Your task to perform on an android device: change notification settings in the gmail app Image 0: 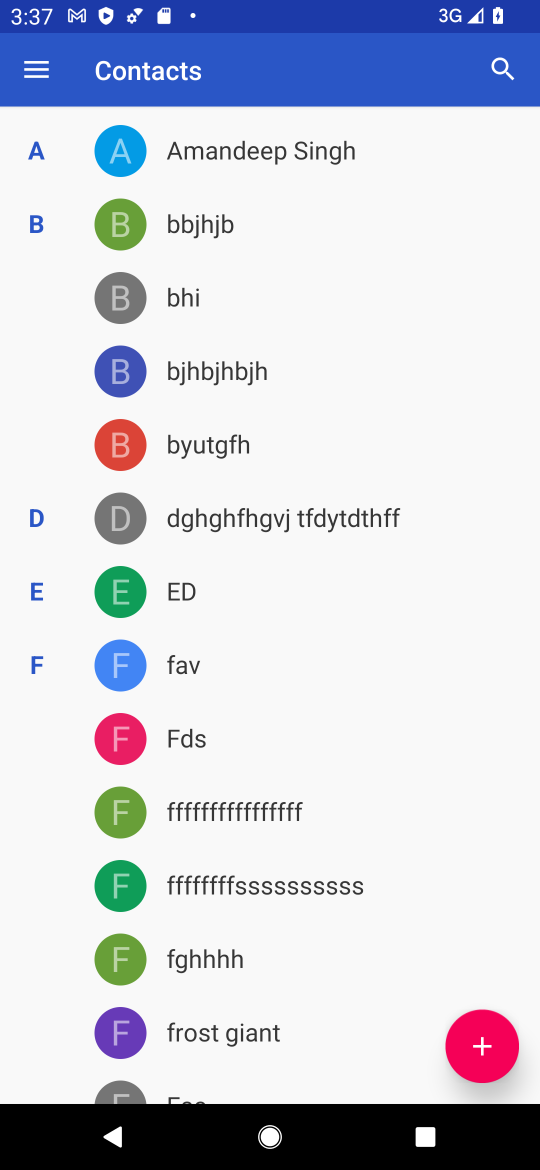
Step 0: press home button
Your task to perform on an android device: change notification settings in the gmail app Image 1: 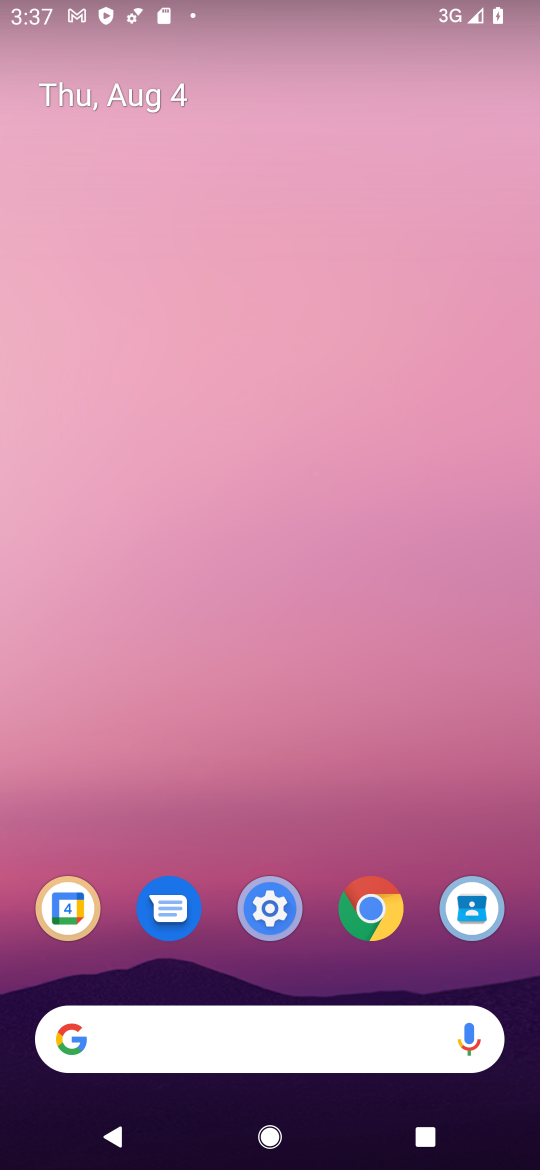
Step 1: drag from (326, 969) to (209, 391)
Your task to perform on an android device: change notification settings in the gmail app Image 2: 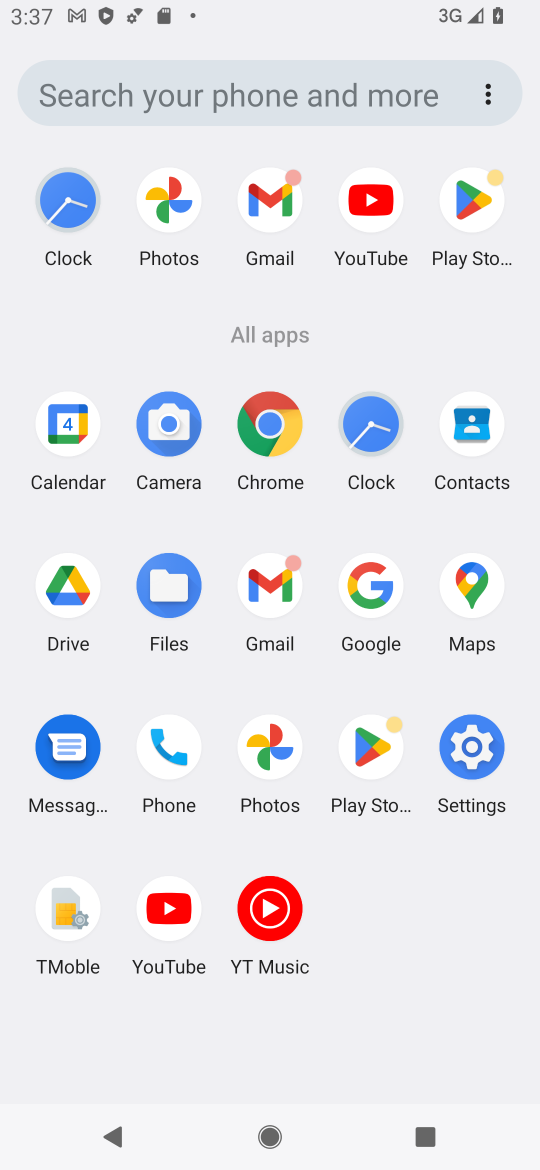
Step 2: click (292, 596)
Your task to perform on an android device: change notification settings in the gmail app Image 3: 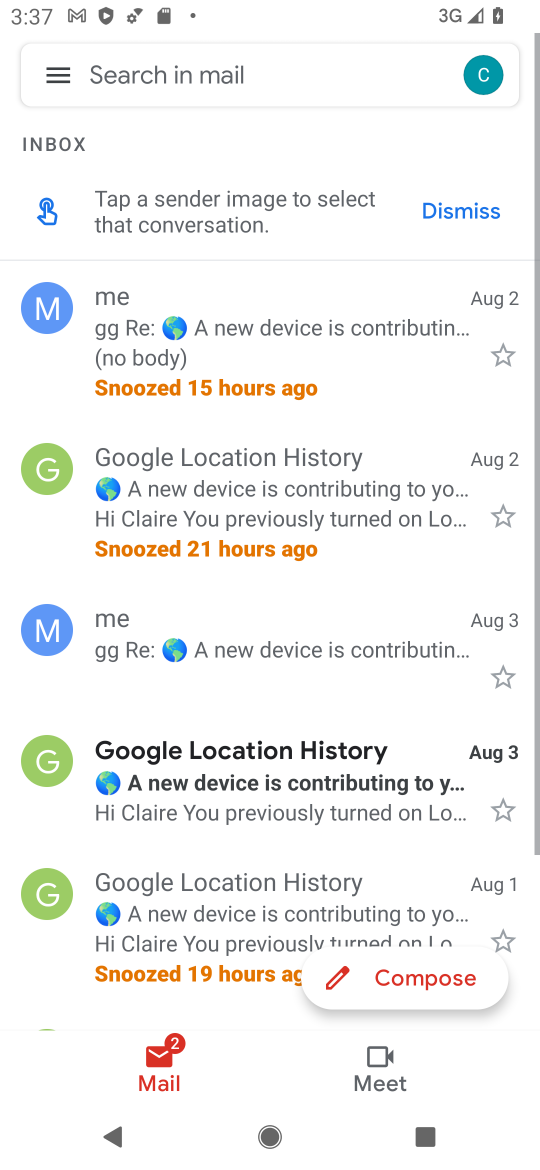
Step 3: click (54, 72)
Your task to perform on an android device: change notification settings in the gmail app Image 4: 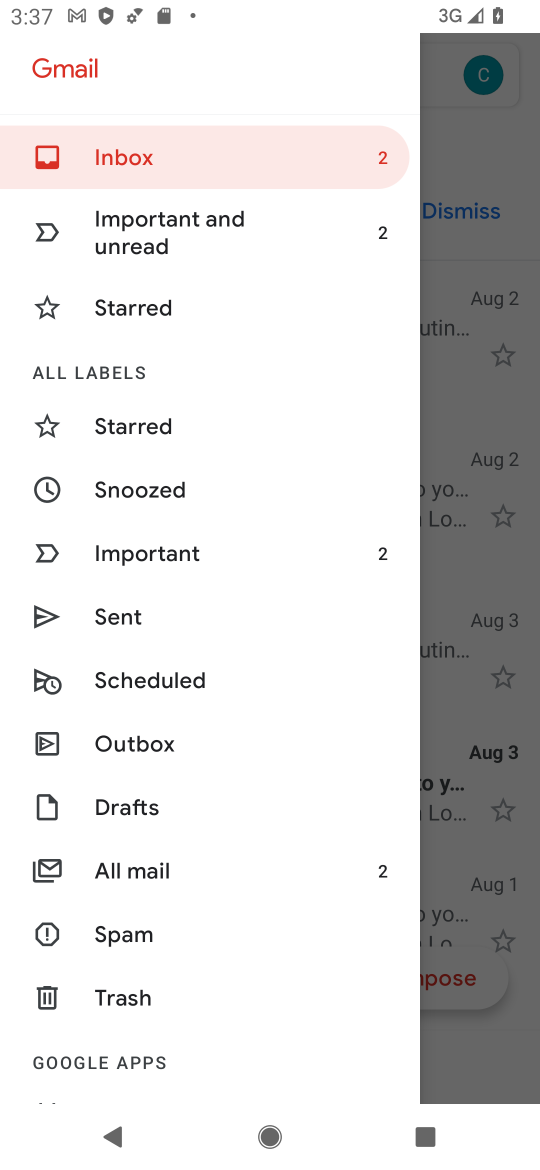
Step 4: drag from (189, 876) to (192, 319)
Your task to perform on an android device: change notification settings in the gmail app Image 5: 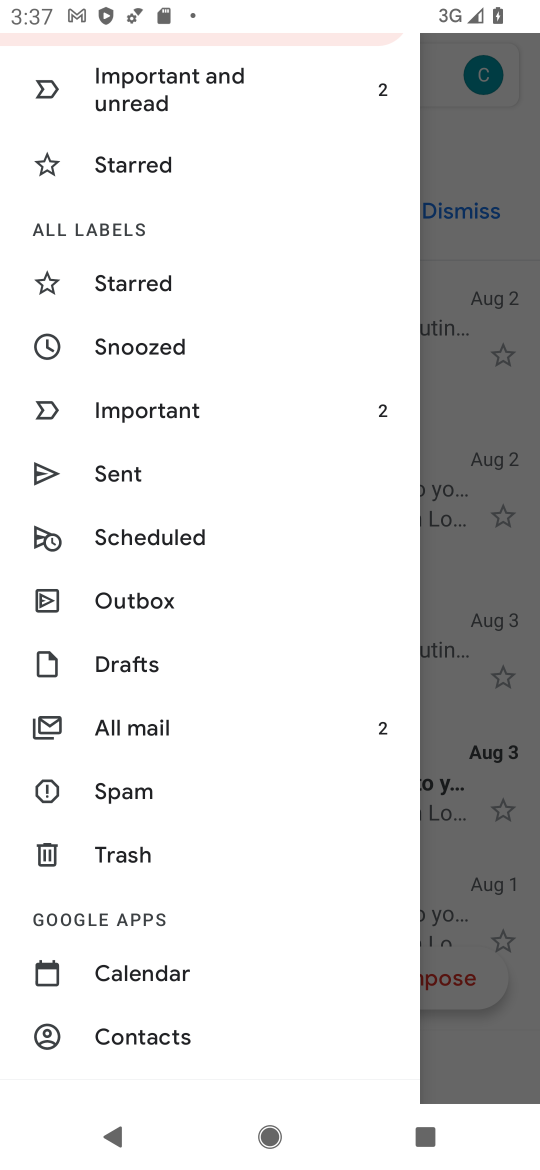
Step 5: drag from (261, 1005) to (170, 343)
Your task to perform on an android device: change notification settings in the gmail app Image 6: 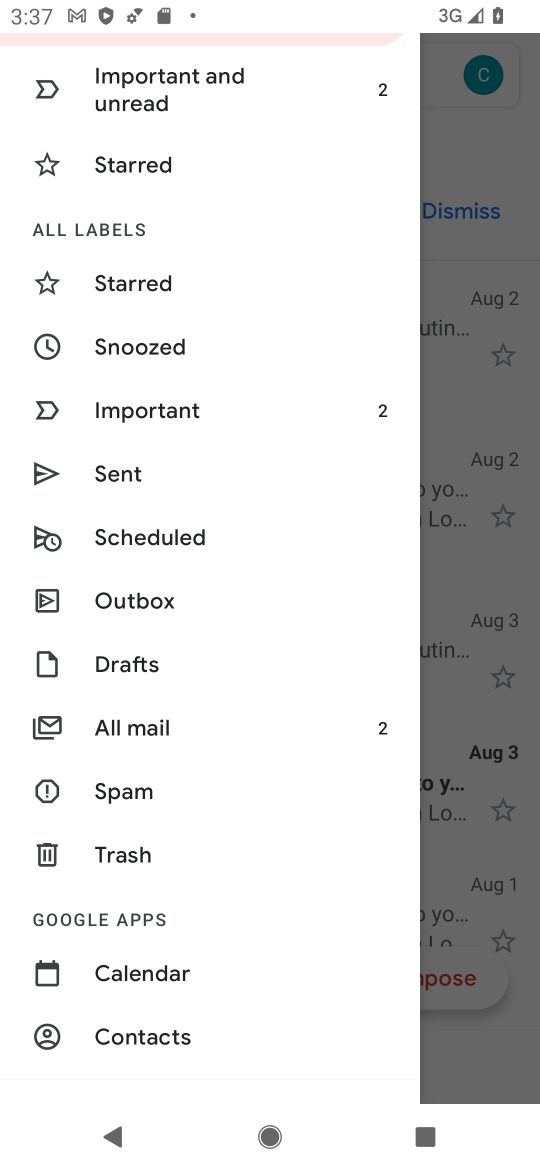
Step 6: drag from (270, 889) to (268, 308)
Your task to perform on an android device: change notification settings in the gmail app Image 7: 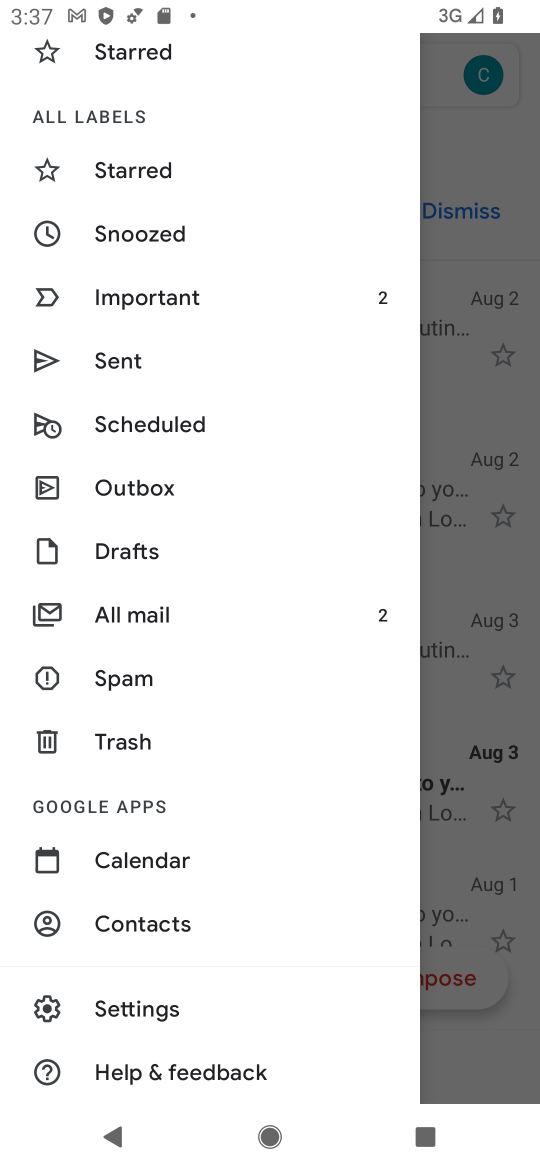
Step 7: click (241, 1012)
Your task to perform on an android device: change notification settings in the gmail app Image 8: 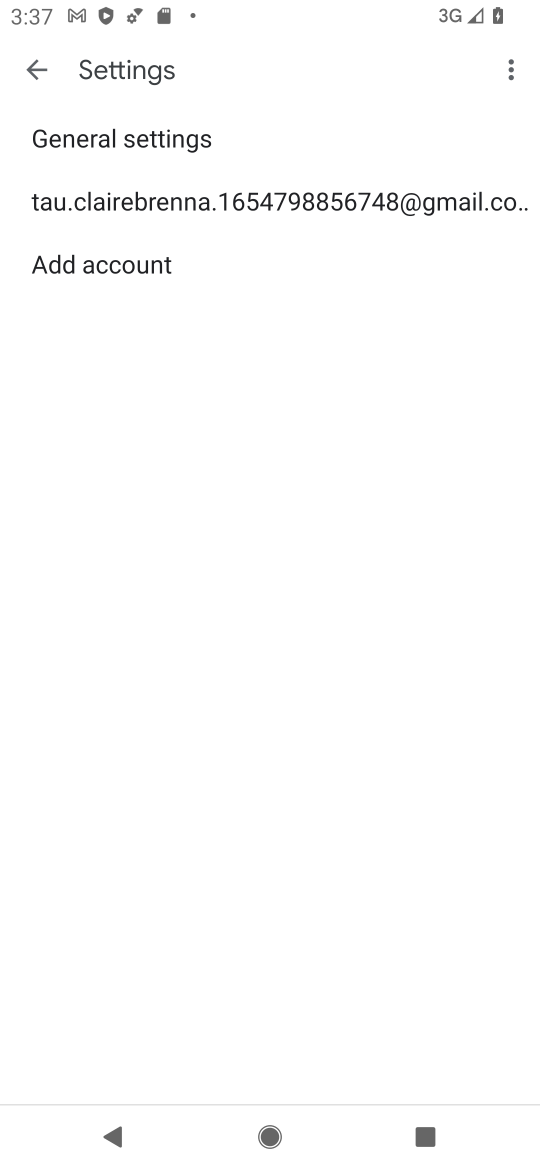
Step 8: click (344, 184)
Your task to perform on an android device: change notification settings in the gmail app Image 9: 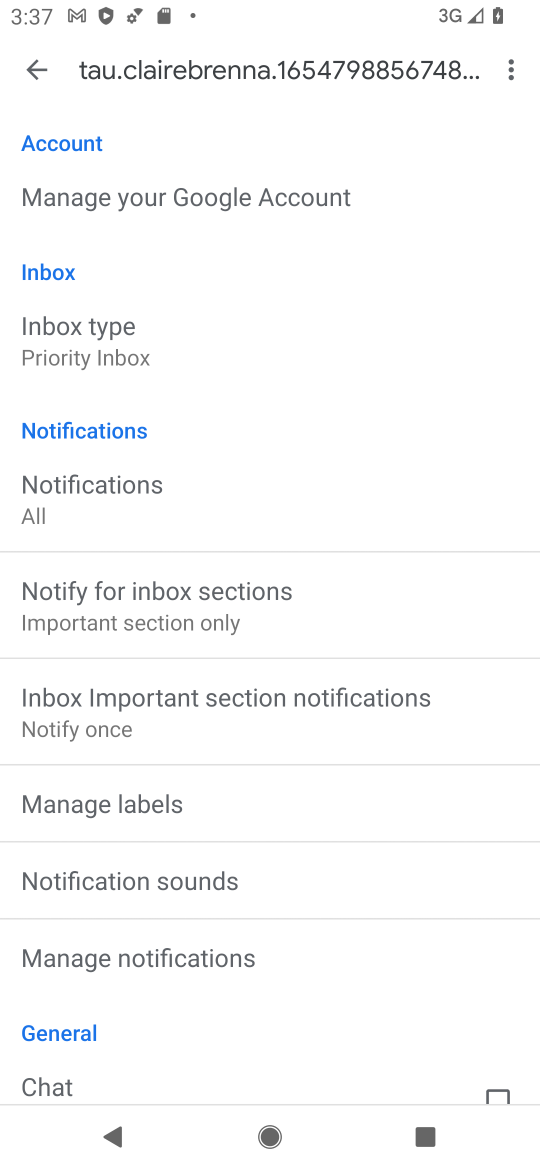
Step 9: click (265, 973)
Your task to perform on an android device: change notification settings in the gmail app Image 10: 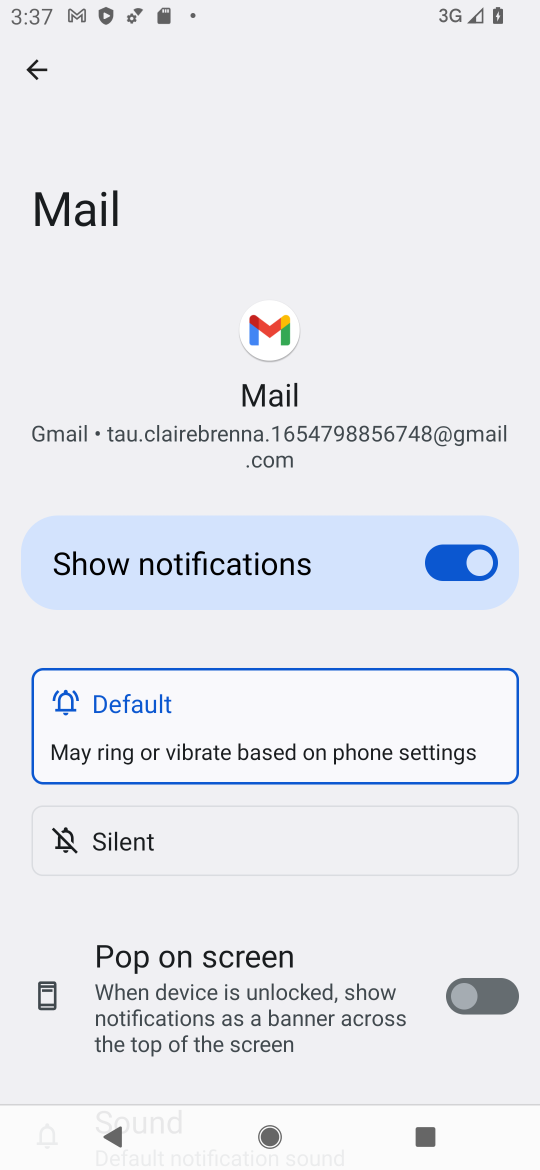
Step 10: click (446, 561)
Your task to perform on an android device: change notification settings in the gmail app Image 11: 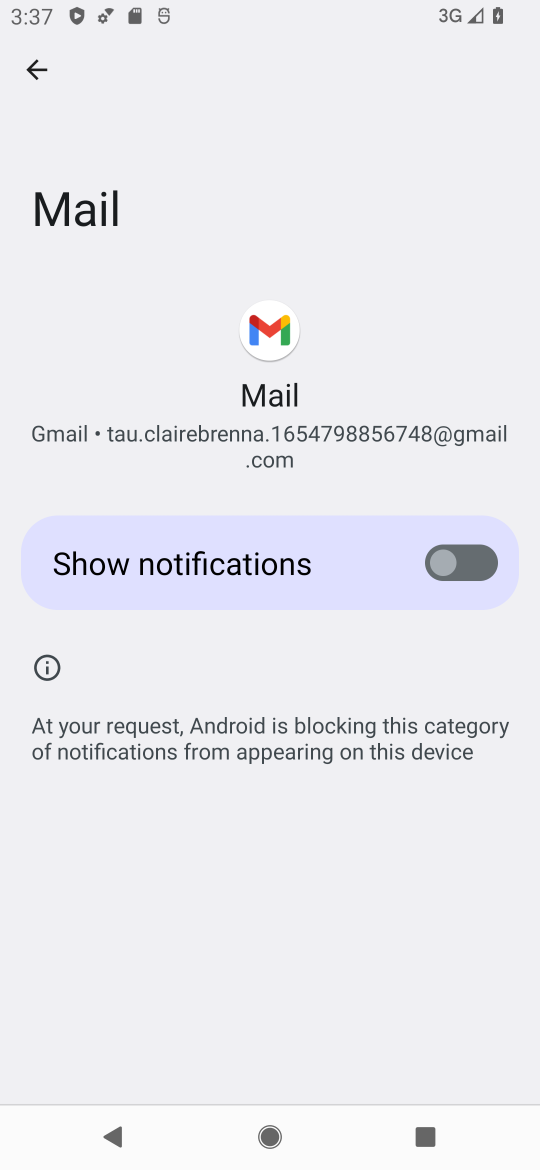
Step 11: task complete